Your task to perform on an android device: turn on translation in the chrome app Image 0: 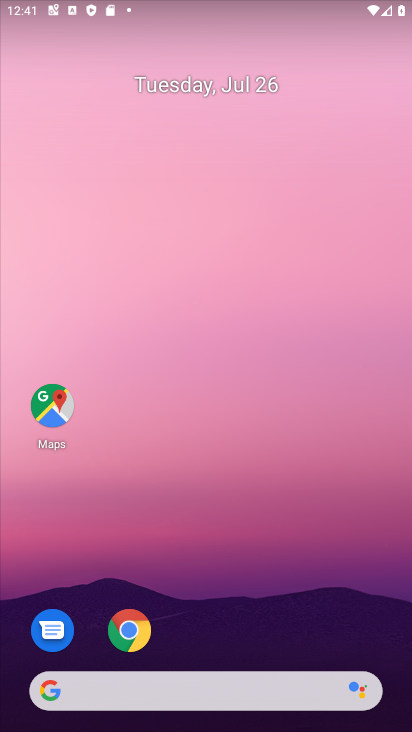
Step 0: click (128, 628)
Your task to perform on an android device: turn on translation in the chrome app Image 1: 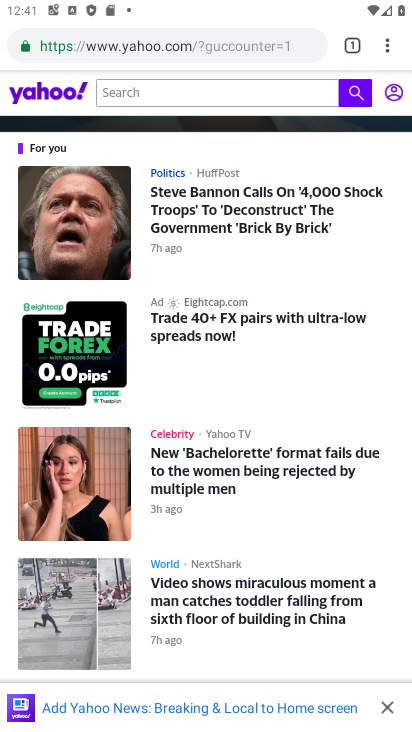
Step 1: click (387, 51)
Your task to perform on an android device: turn on translation in the chrome app Image 2: 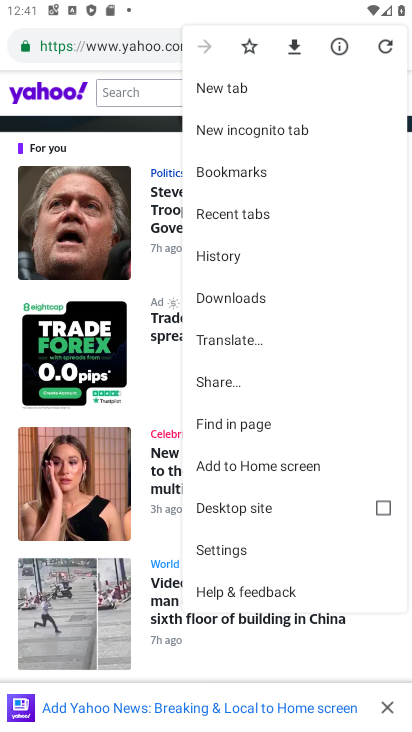
Step 2: click (227, 541)
Your task to perform on an android device: turn on translation in the chrome app Image 3: 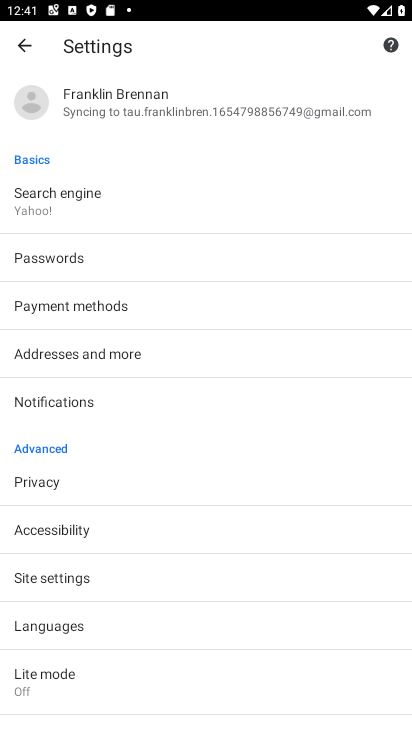
Step 3: click (52, 624)
Your task to perform on an android device: turn on translation in the chrome app Image 4: 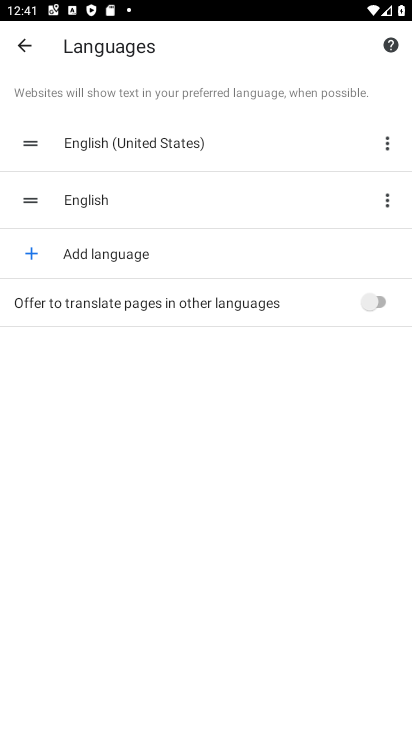
Step 4: click (383, 299)
Your task to perform on an android device: turn on translation in the chrome app Image 5: 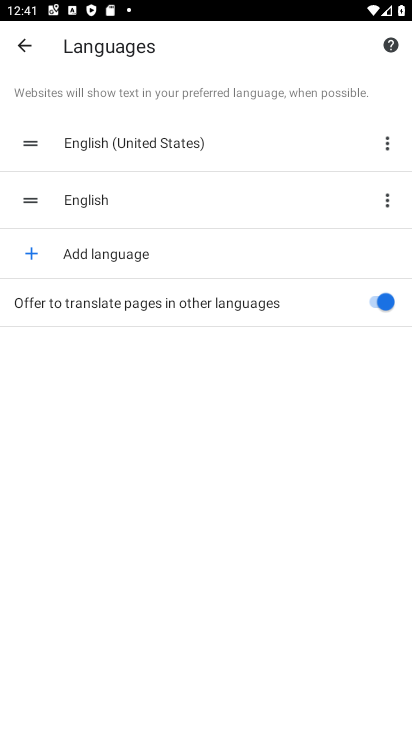
Step 5: task complete